Your task to perform on an android device: change the clock display to analog Image 0: 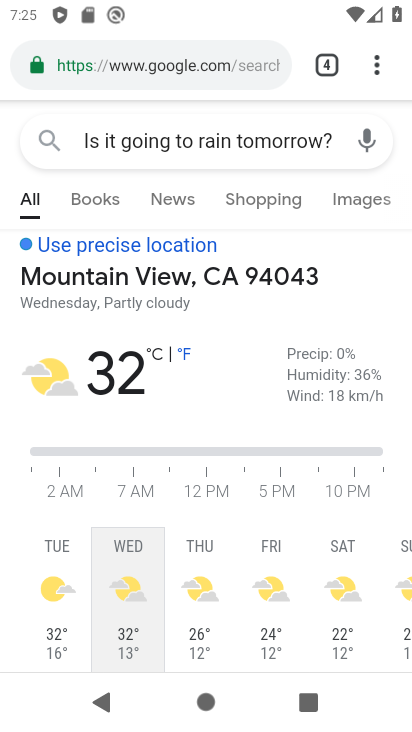
Step 0: press home button
Your task to perform on an android device: change the clock display to analog Image 1: 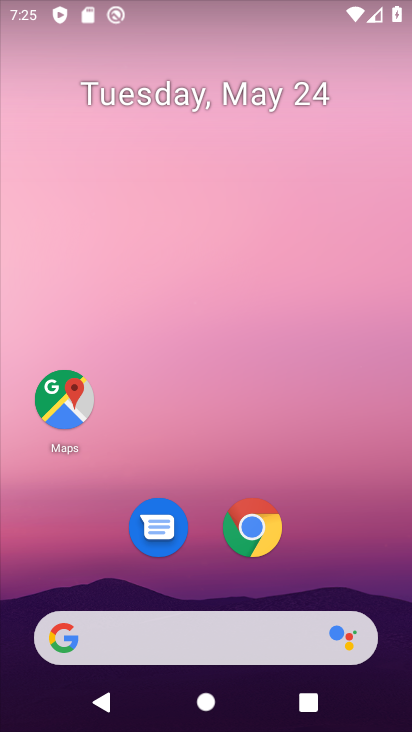
Step 1: drag from (293, 575) to (273, 120)
Your task to perform on an android device: change the clock display to analog Image 2: 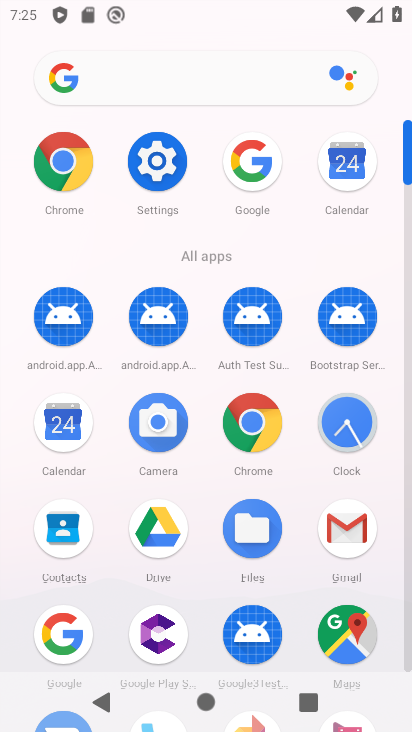
Step 2: click (146, 141)
Your task to perform on an android device: change the clock display to analog Image 3: 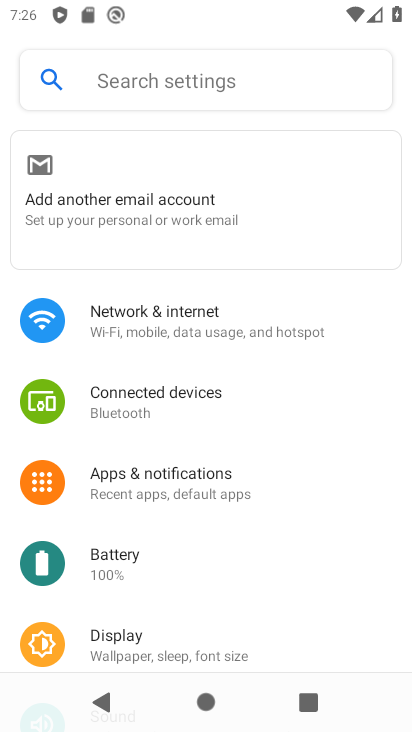
Step 3: drag from (162, 541) to (189, 216)
Your task to perform on an android device: change the clock display to analog Image 4: 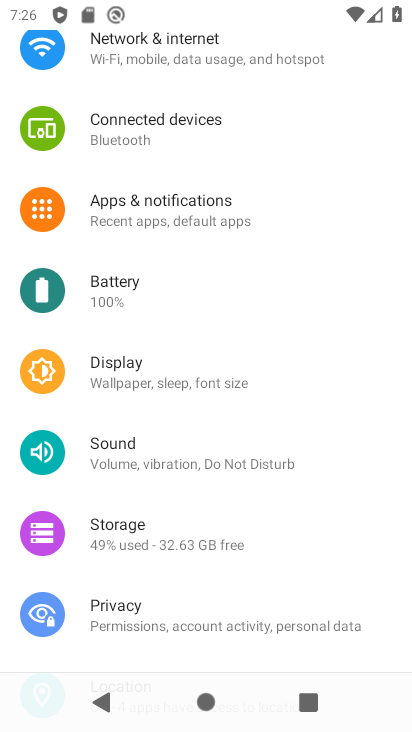
Step 4: press home button
Your task to perform on an android device: change the clock display to analog Image 5: 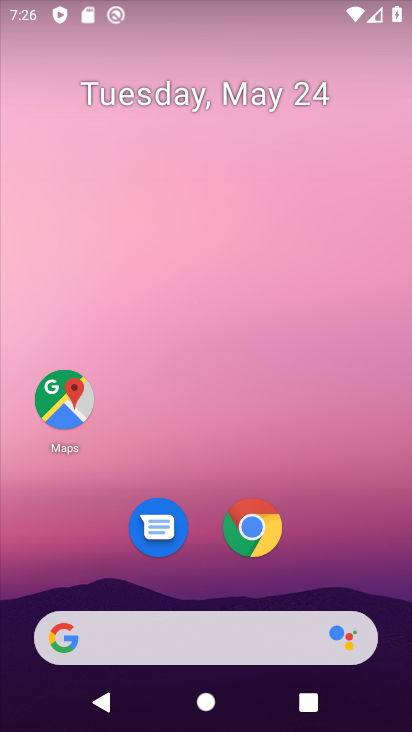
Step 5: drag from (322, 477) to (306, 250)
Your task to perform on an android device: change the clock display to analog Image 6: 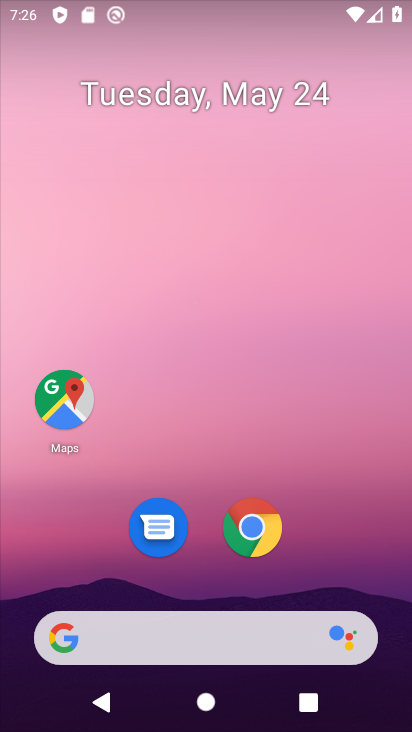
Step 6: drag from (333, 614) to (330, 255)
Your task to perform on an android device: change the clock display to analog Image 7: 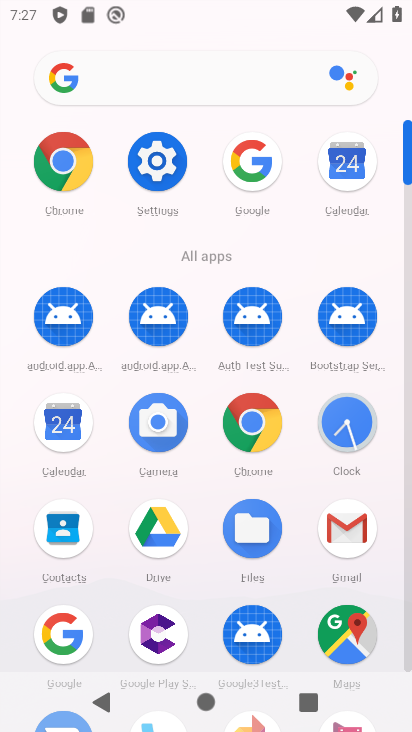
Step 7: click (336, 416)
Your task to perform on an android device: change the clock display to analog Image 8: 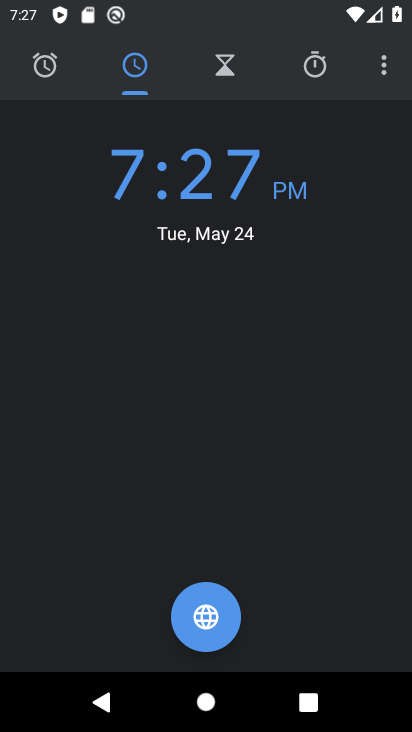
Step 8: click (377, 73)
Your task to perform on an android device: change the clock display to analog Image 9: 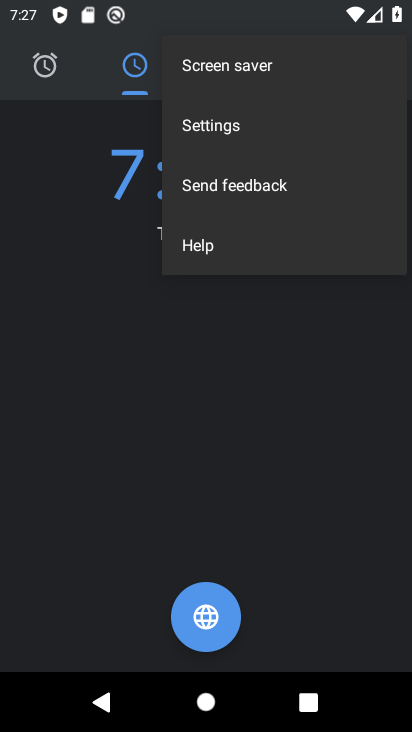
Step 9: click (194, 117)
Your task to perform on an android device: change the clock display to analog Image 10: 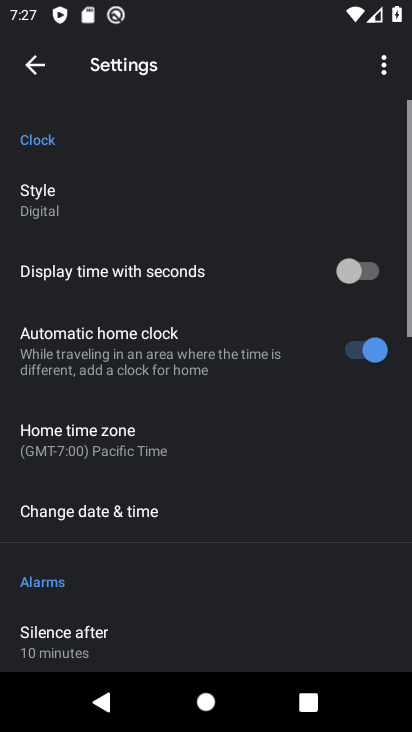
Step 10: click (81, 192)
Your task to perform on an android device: change the clock display to analog Image 11: 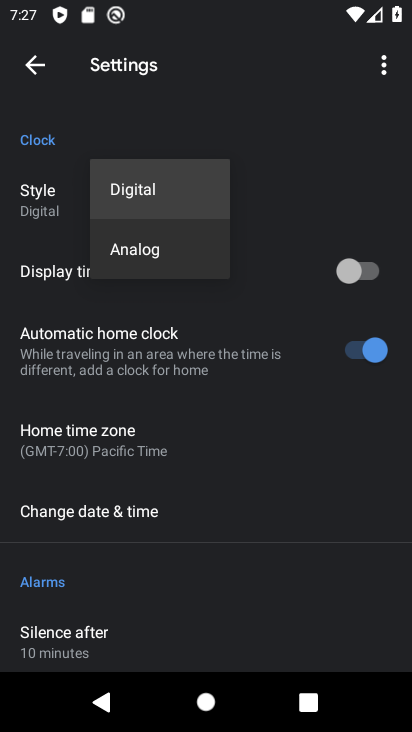
Step 11: click (132, 252)
Your task to perform on an android device: change the clock display to analog Image 12: 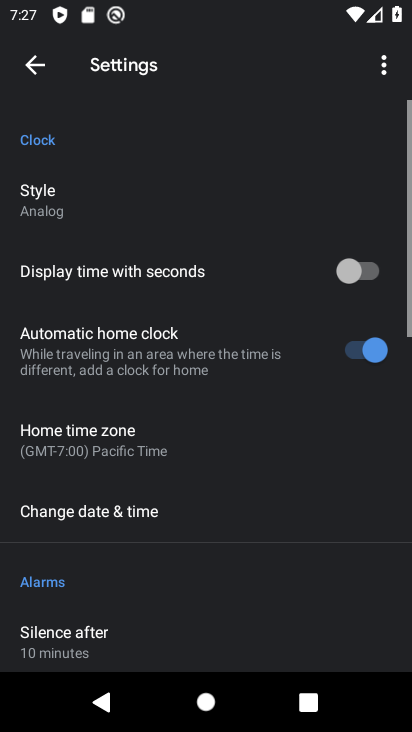
Step 12: task complete